Your task to perform on an android device: What's on my calendar tomorrow? Image 0: 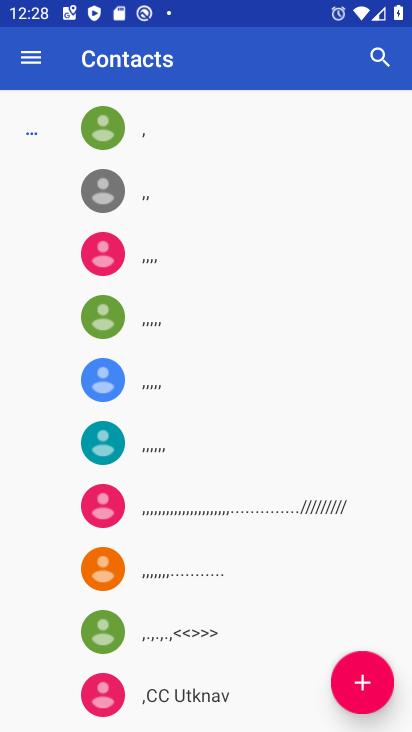
Step 0: press home button
Your task to perform on an android device: What's on my calendar tomorrow? Image 1: 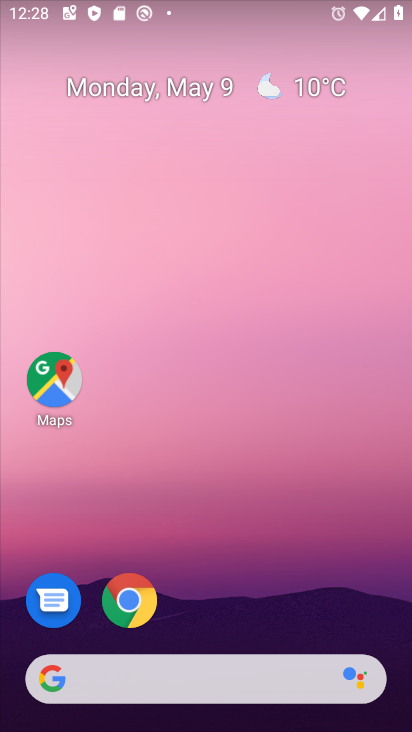
Step 1: drag from (248, 509) to (398, 49)
Your task to perform on an android device: What's on my calendar tomorrow? Image 2: 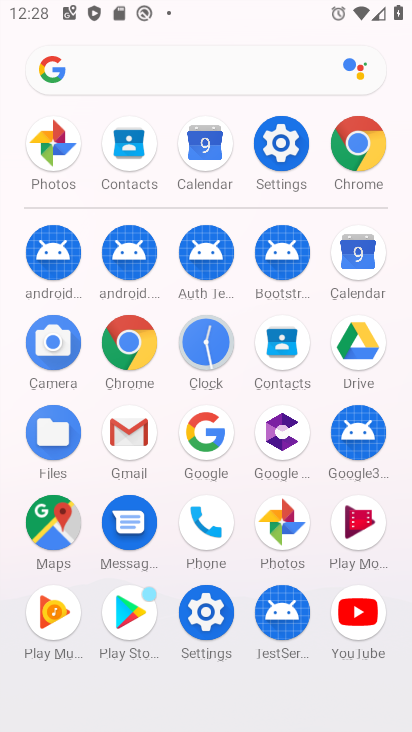
Step 2: click (354, 244)
Your task to perform on an android device: What's on my calendar tomorrow? Image 3: 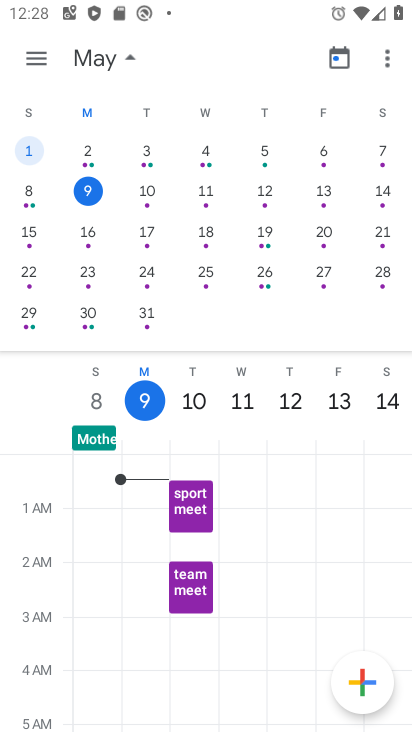
Step 3: click (143, 190)
Your task to perform on an android device: What's on my calendar tomorrow? Image 4: 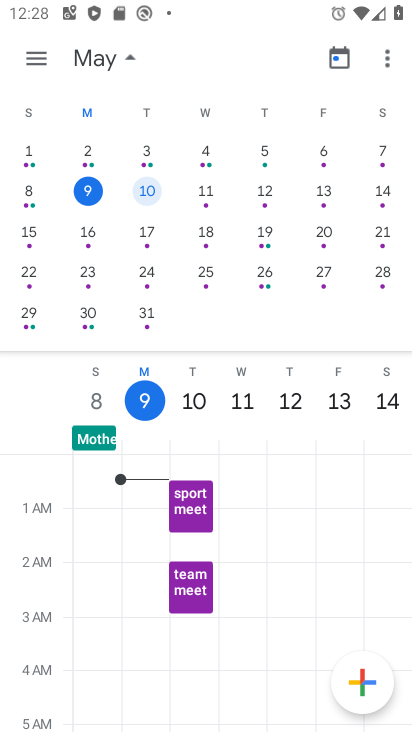
Step 4: task complete